Your task to perform on an android device: Go to Wikipedia Image 0: 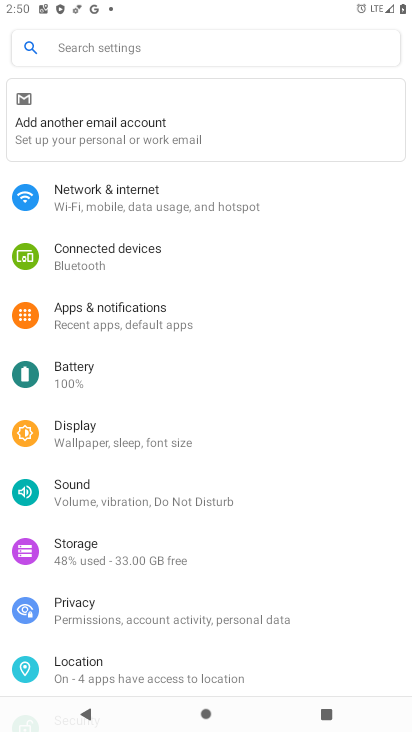
Step 0: press home button
Your task to perform on an android device: Go to Wikipedia Image 1: 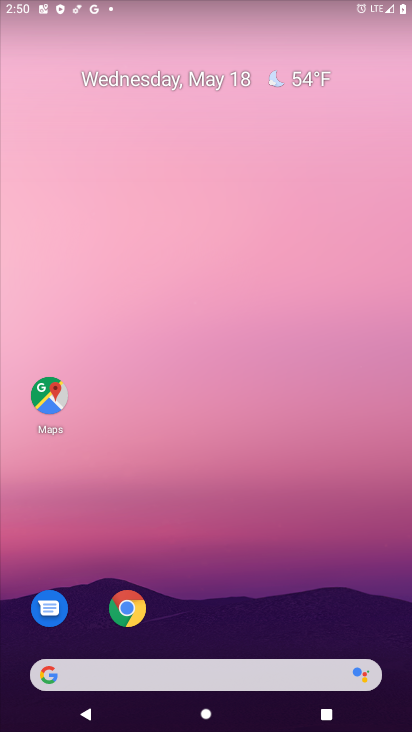
Step 1: click (131, 619)
Your task to perform on an android device: Go to Wikipedia Image 2: 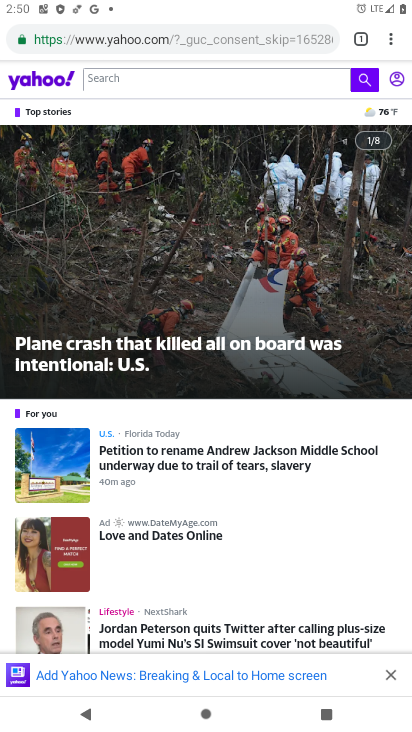
Step 2: click (120, 41)
Your task to perform on an android device: Go to Wikipedia Image 3: 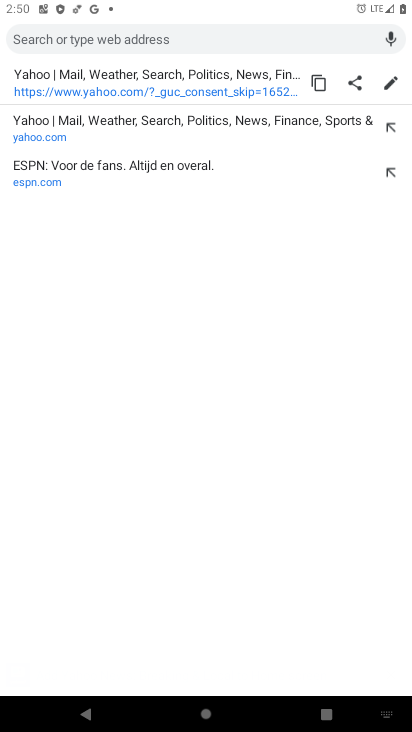
Step 3: type "wikipedia"
Your task to perform on an android device: Go to Wikipedia Image 4: 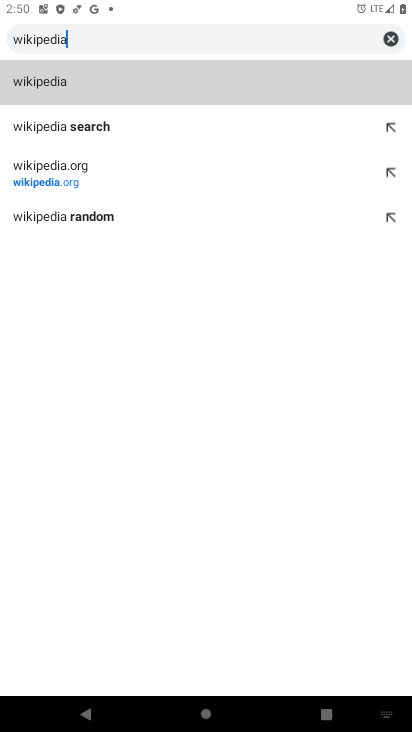
Step 4: click (49, 169)
Your task to perform on an android device: Go to Wikipedia Image 5: 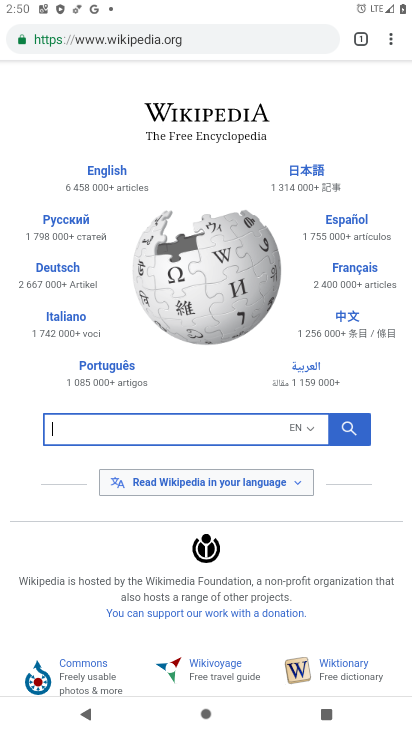
Step 5: task complete